Your task to perform on an android device: Open Chrome and go to settings Image 0: 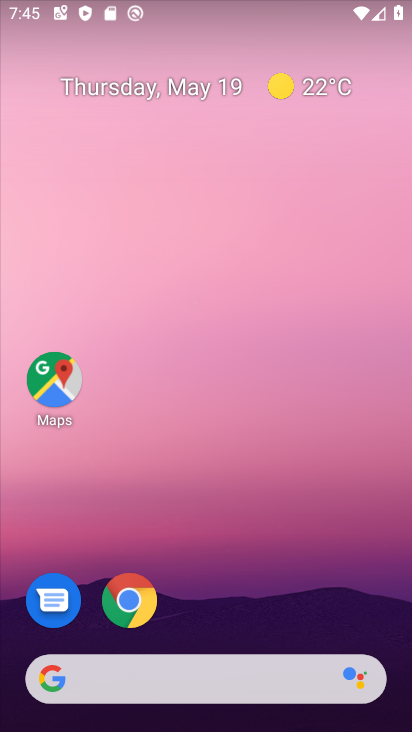
Step 0: drag from (182, 521) to (185, 175)
Your task to perform on an android device: Open Chrome and go to settings Image 1: 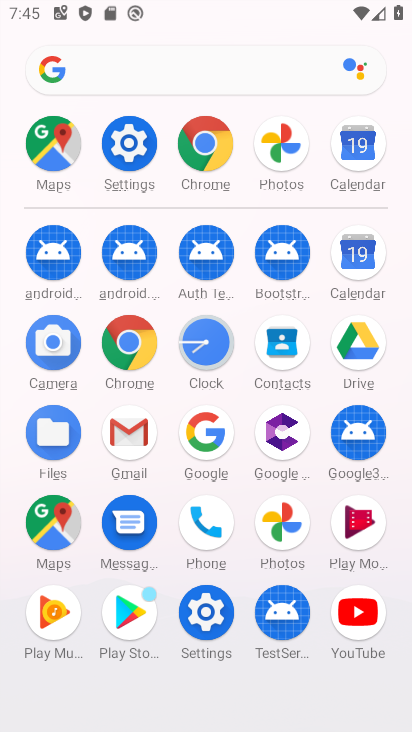
Step 1: click (136, 354)
Your task to perform on an android device: Open Chrome and go to settings Image 2: 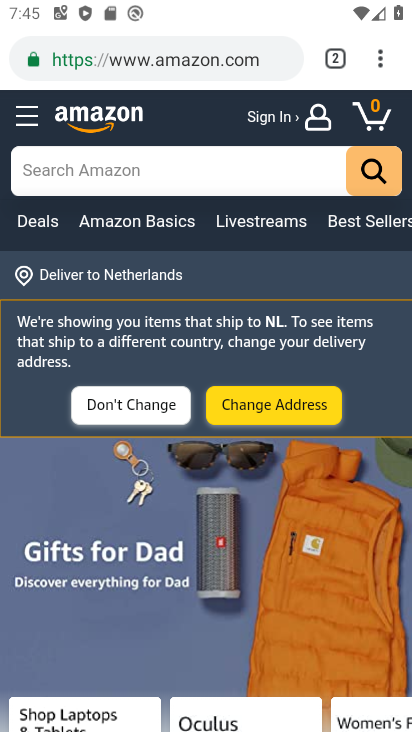
Step 2: task complete